Your task to perform on an android device: turn on wifi Image 0: 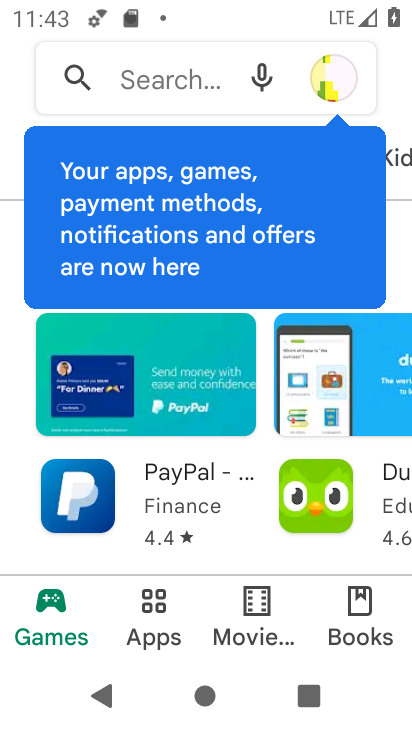
Step 0: press home button
Your task to perform on an android device: turn on wifi Image 1: 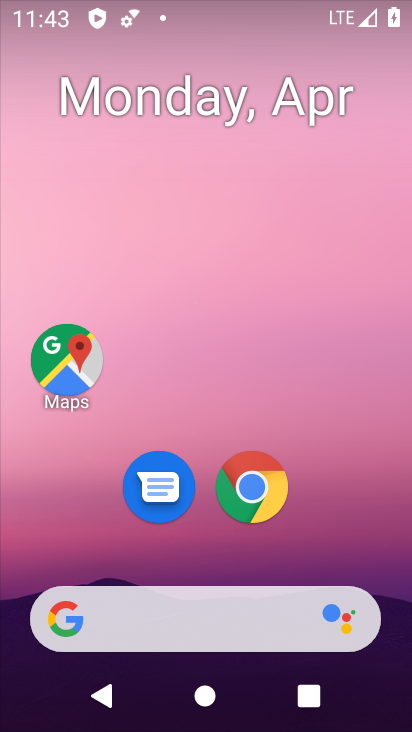
Step 1: drag from (368, 479) to (300, 139)
Your task to perform on an android device: turn on wifi Image 2: 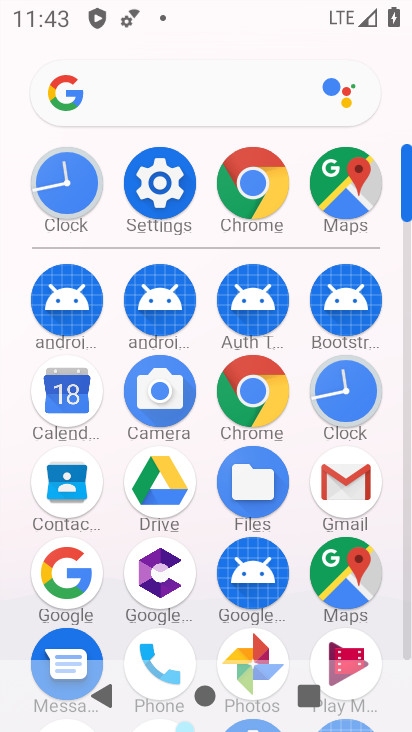
Step 2: click (160, 164)
Your task to perform on an android device: turn on wifi Image 3: 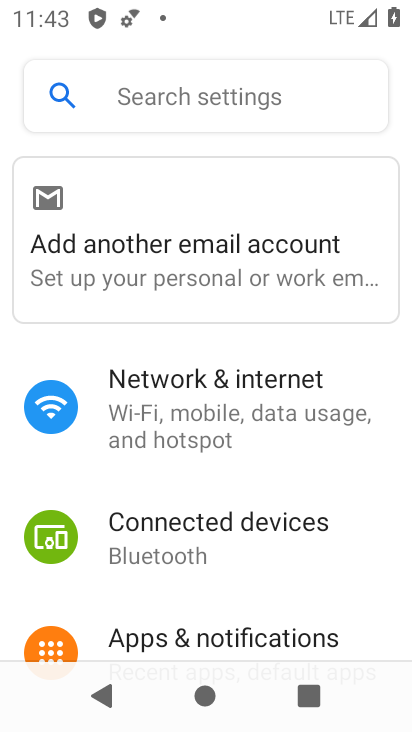
Step 3: click (227, 364)
Your task to perform on an android device: turn on wifi Image 4: 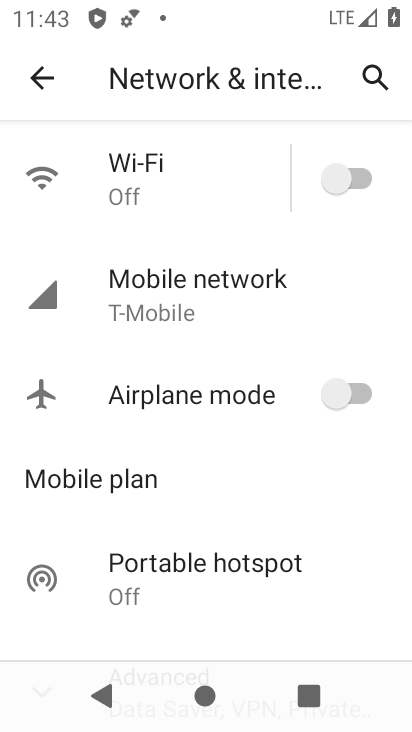
Step 4: click (358, 191)
Your task to perform on an android device: turn on wifi Image 5: 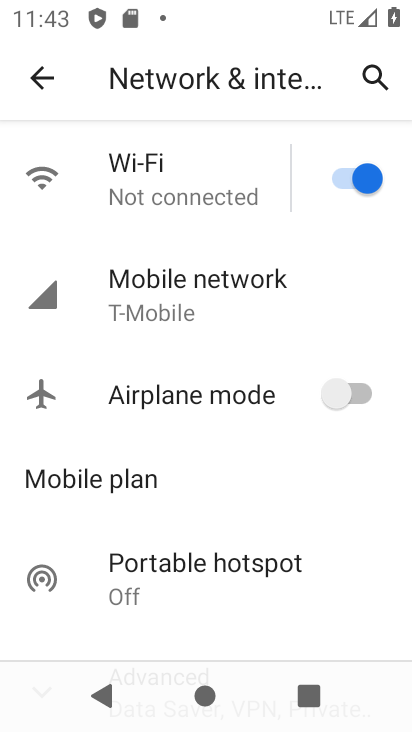
Step 5: task complete